Your task to perform on an android device: toggle airplane mode Image 0: 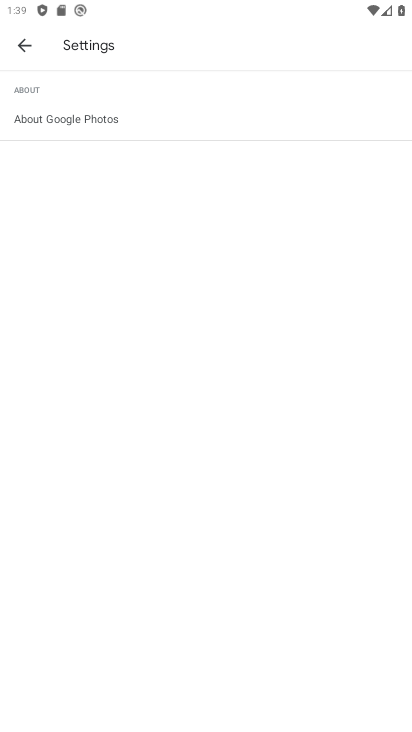
Step 0: click (21, 49)
Your task to perform on an android device: toggle airplane mode Image 1: 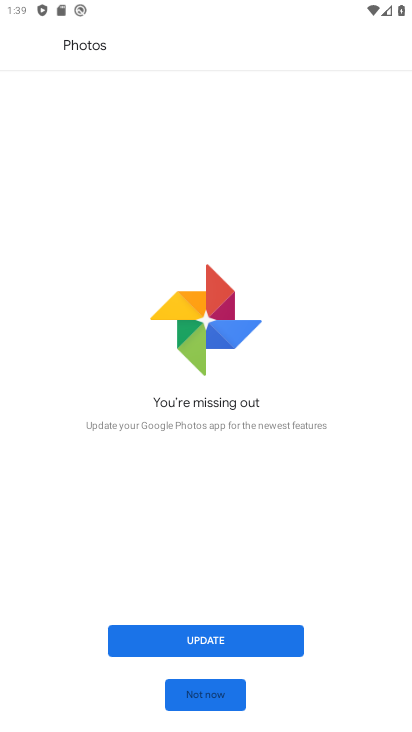
Step 1: click (220, 642)
Your task to perform on an android device: toggle airplane mode Image 2: 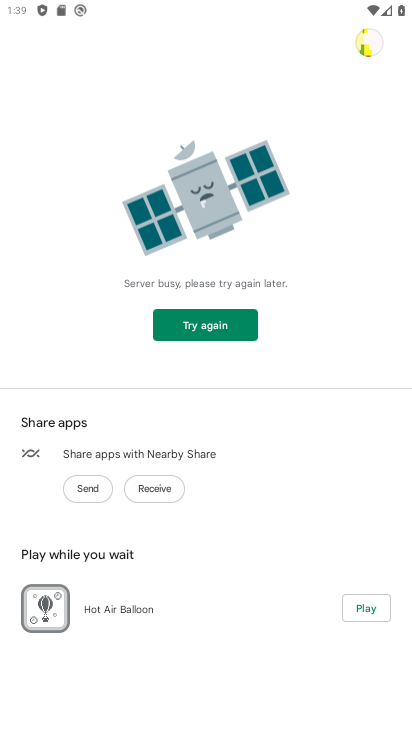
Step 2: click (238, 329)
Your task to perform on an android device: toggle airplane mode Image 3: 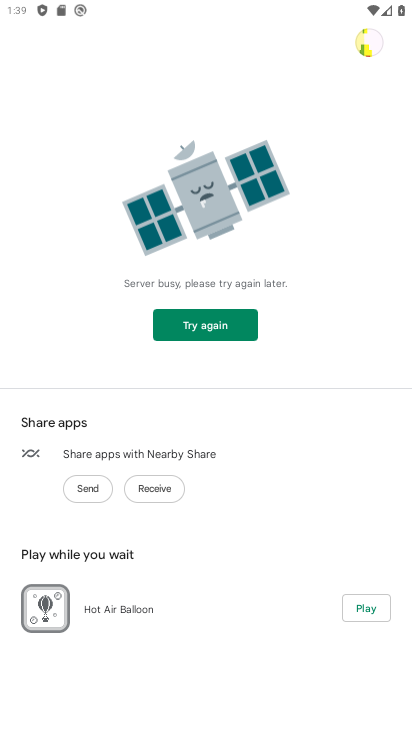
Step 3: click (193, 322)
Your task to perform on an android device: toggle airplane mode Image 4: 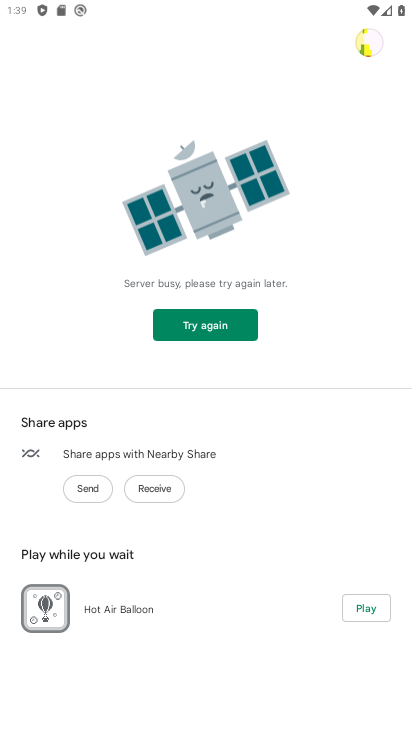
Step 4: click (239, 323)
Your task to perform on an android device: toggle airplane mode Image 5: 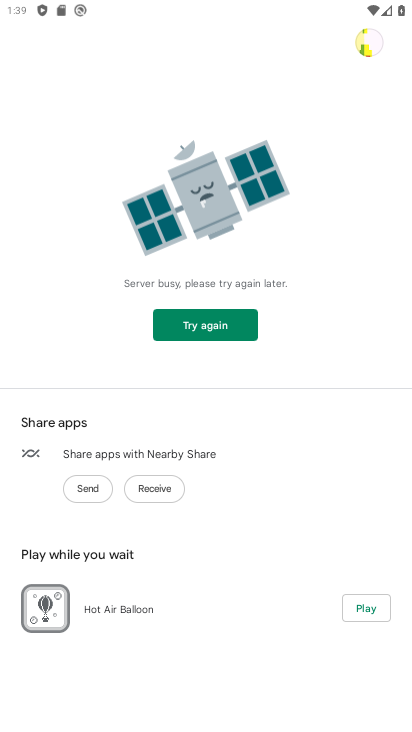
Step 5: click (223, 326)
Your task to perform on an android device: toggle airplane mode Image 6: 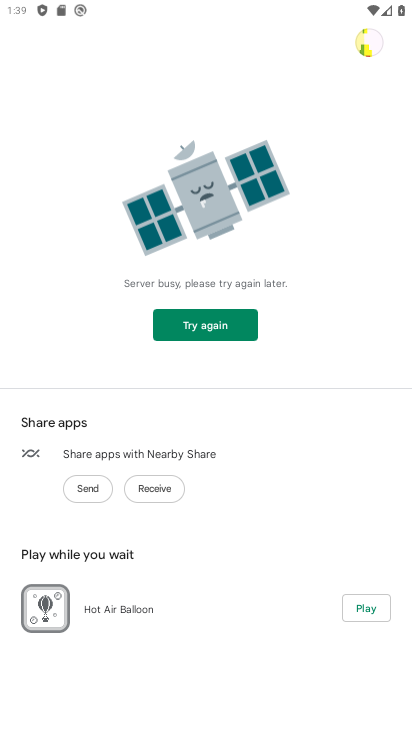
Step 6: click (231, 331)
Your task to perform on an android device: toggle airplane mode Image 7: 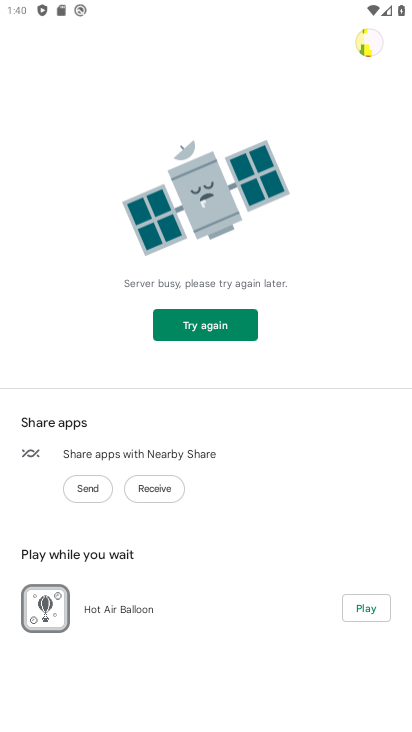
Step 7: click (198, 332)
Your task to perform on an android device: toggle airplane mode Image 8: 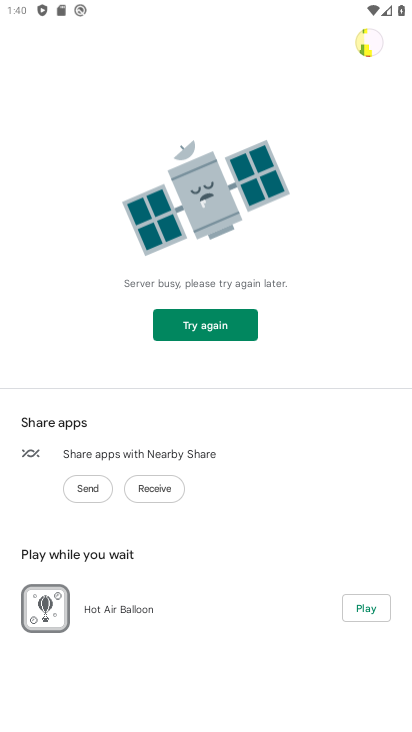
Step 8: task complete